Your task to perform on an android device: Open the phone app and click the voicemail tab. Image 0: 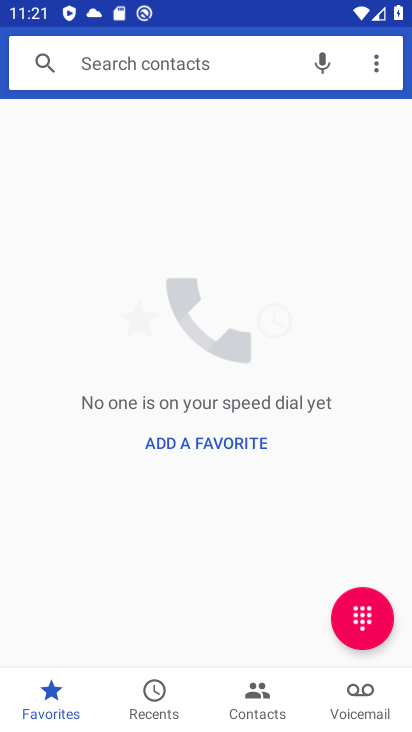
Step 0: click (352, 700)
Your task to perform on an android device: Open the phone app and click the voicemail tab. Image 1: 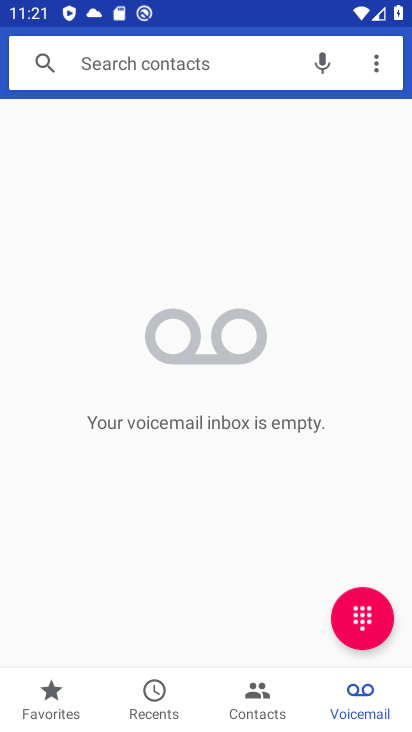
Step 1: task complete